Your task to perform on an android device: open sync settings in chrome Image 0: 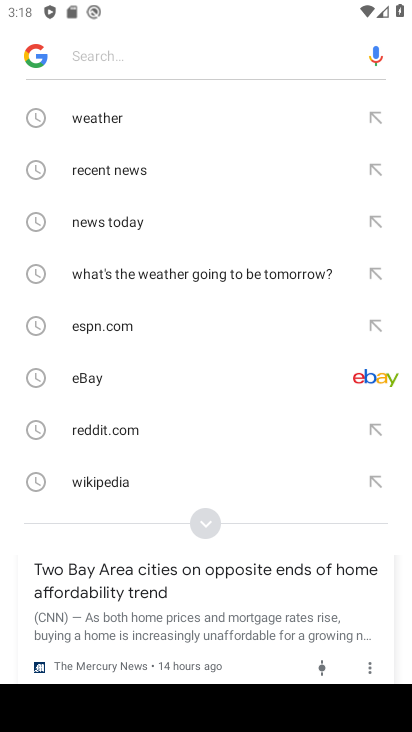
Step 0: press home button
Your task to perform on an android device: open sync settings in chrome Image 1: 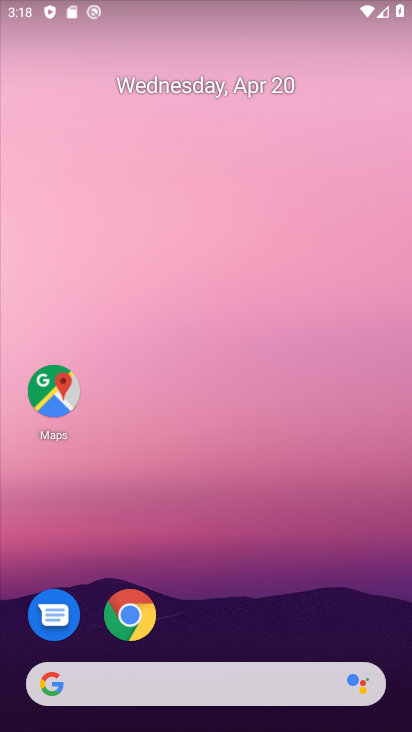
Step 1: click (150, 600)
Your task to perform on an android device: open sync settings in chrome Image 2: 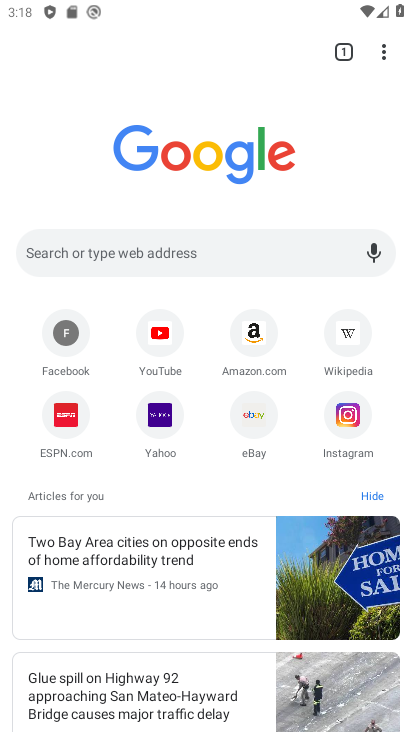
Step 2: click (380, 55)
Your task to perform on an android device: open sync settings in chrome Image 3: 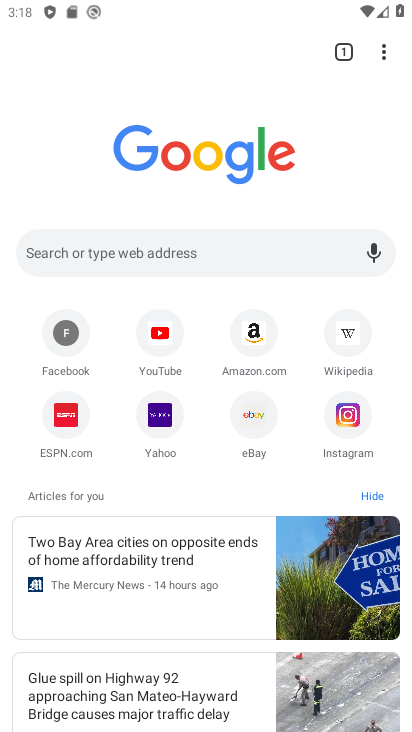
Step 3: click (371, 61)
Your task to perform on an android device: open sync settings in chrome Image 4: 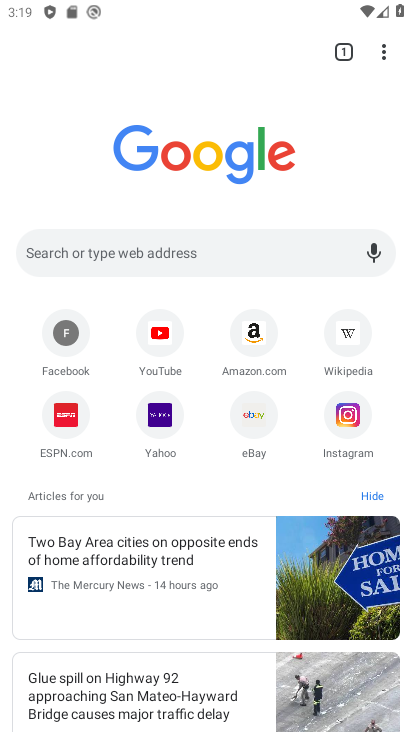
Step 4: click (381, 47)
Your task to perform on an android device: open sync settings in chrome Image 5: 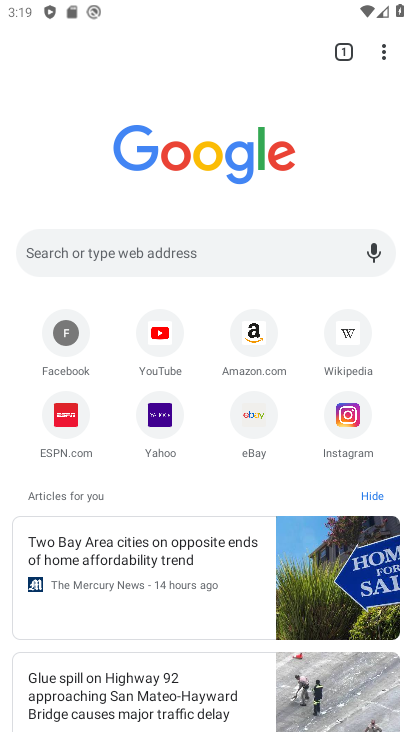
Step 5: click (376, 57)
Your task to perform on an android device: open sync settings in chrome Image 6: 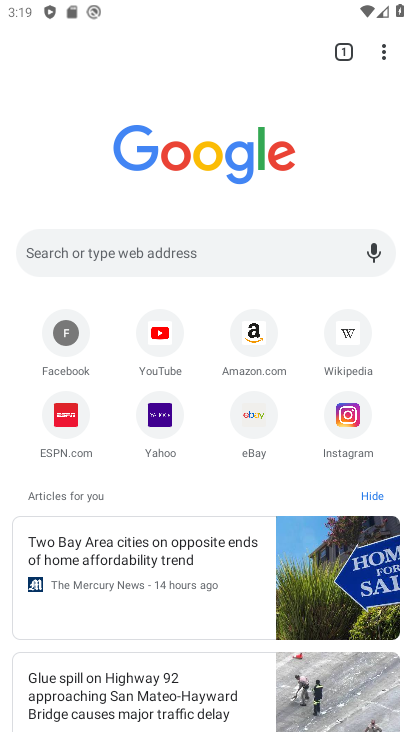
Step 6: click (388, 59)
Your task to perform on an android device: open sync settings in chrome Image 7: 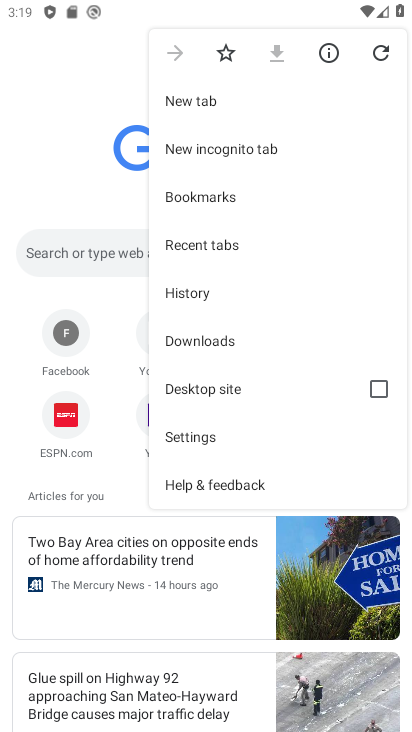
Step 7: drag from (256, 286) to (300, 42)
Your task to perform on an android device: open sync settings in chrome Image 8: 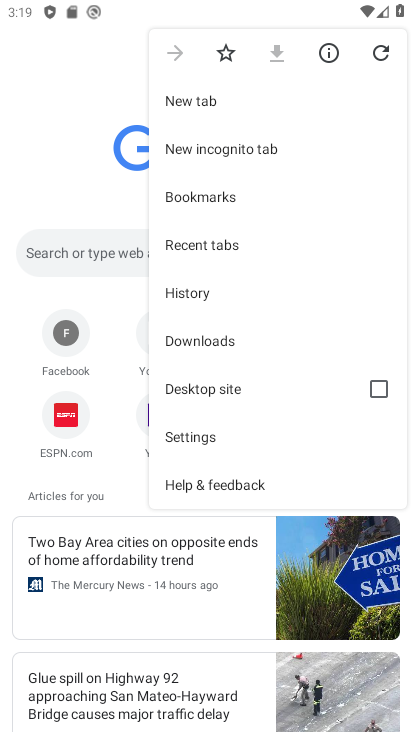
Step 8: click (192, 438)
Your task to perform on an android device: open sync settings in chrome Image 9: 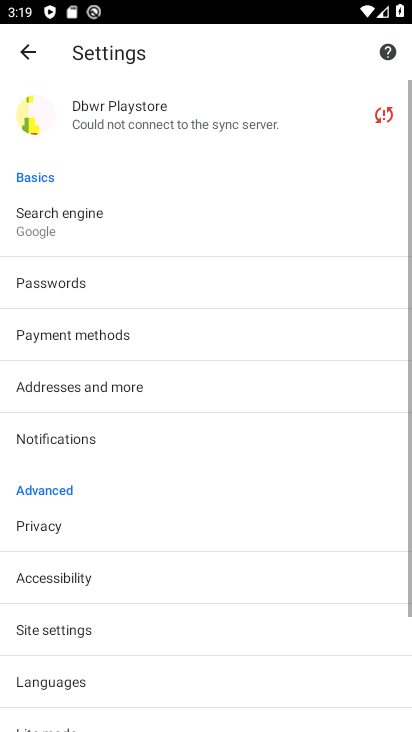
Step 9: drag from (204, 348) to (271, 92)
Your task to perform on an android device: open sync settings in chrome Image 10: 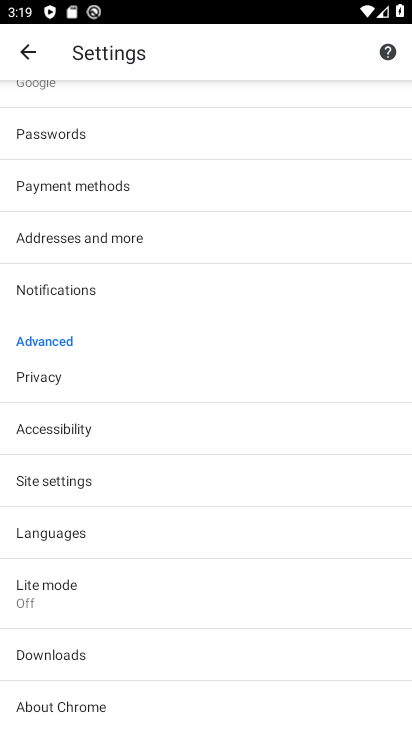
Step 10: click (131, 474)
Your task to perform on an android device: open sync settings in chrome Image 11: 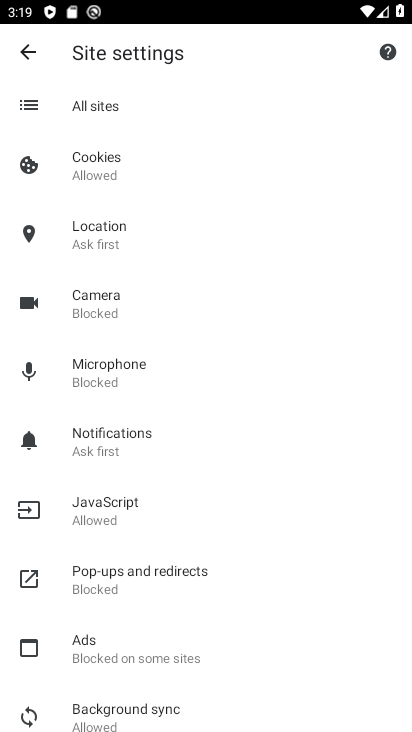
Step 11: click (165, 718)
Your task to perform on an android device: open sync settings in chrome Image 12: 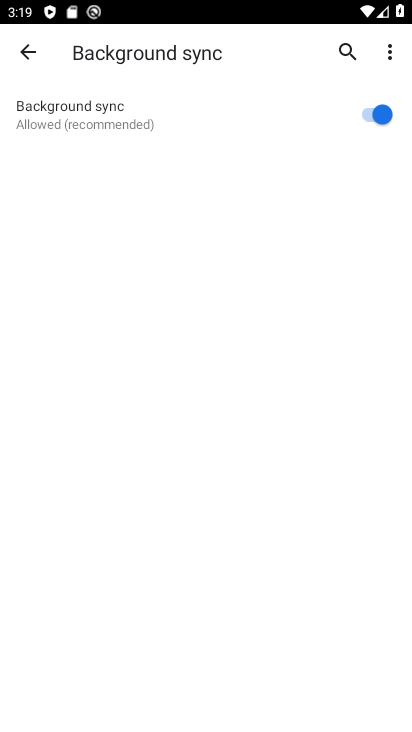
Step 12: task complete